Your task to perform on an android device: add a label to a message in the gmail app Image 0: 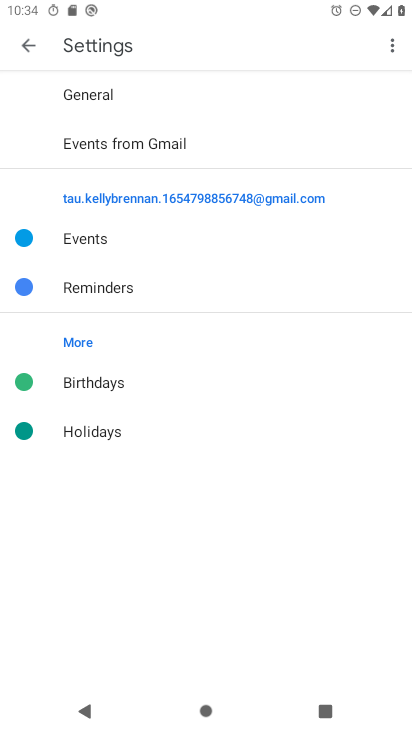
Step 0: press back button
Your task to perform on an android device: add a label to a message in the gmail app Image 1: 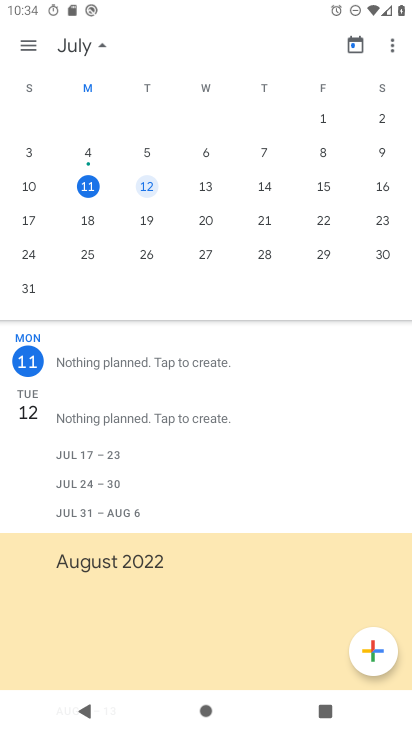
Step 1: press back button
Your task to perform on an android device: add a label to a message in the gmail app Image 2: 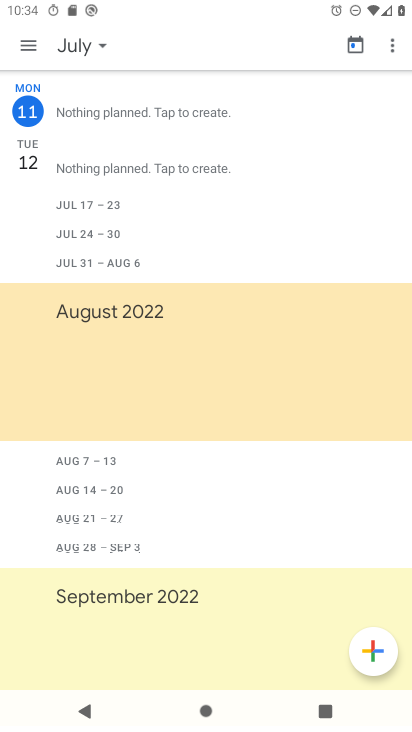
Step 2: press back button
Your task to perform on an android device: add a label to a message in the gmail app Image 3: 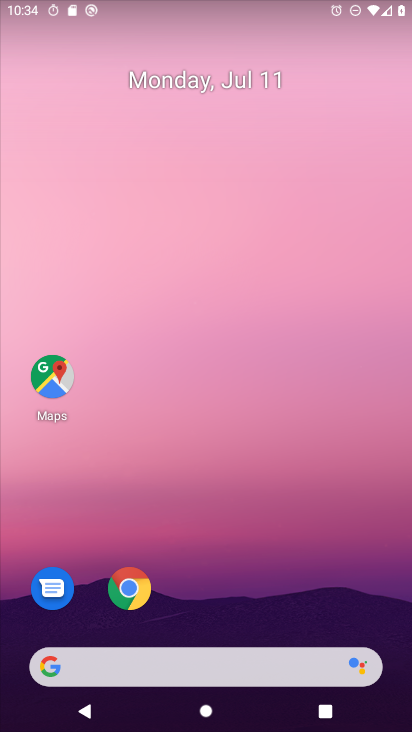
Step 3: drag from (193, 613) to (212, 3)
Your task to perform on an android device: add a label to a message in the gmail app Image 4: 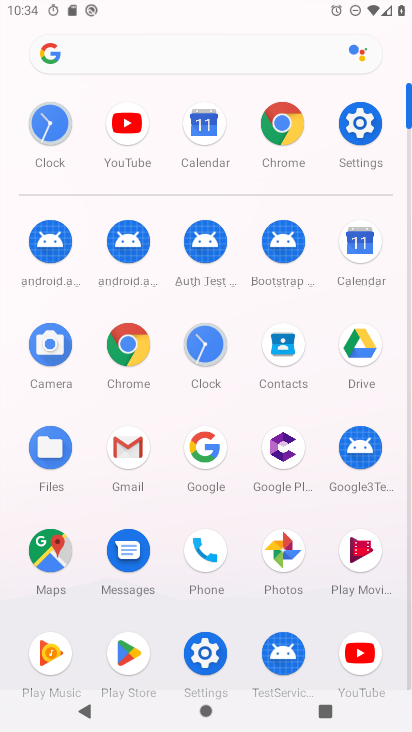
Step 4: click (130, 451)
Your task to perform on an android device: add a label to a message in the gmail app Image 5: 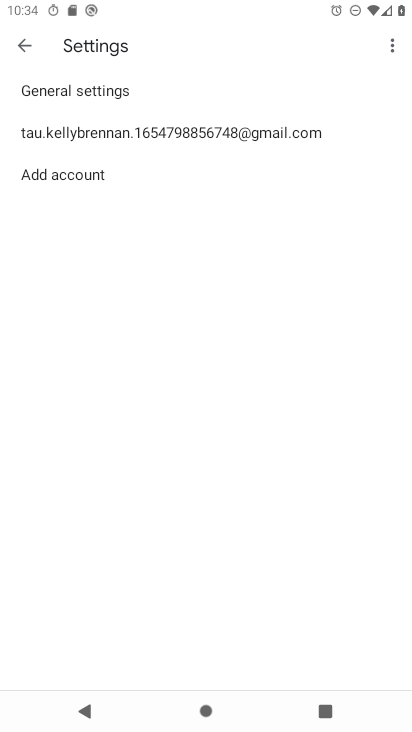
Step 5: click (34, 38)
Your task to perform on an android device: add a label to a message in the gmail app Image 6: 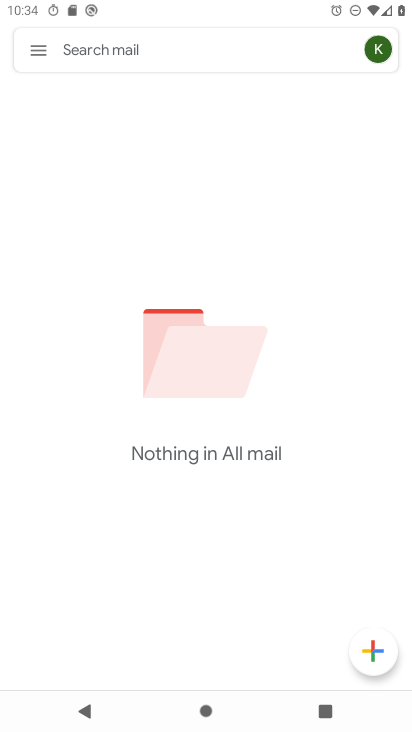
Step 6: task complete